Your task to perform on an android device: What's on my calendar today? Image 0: 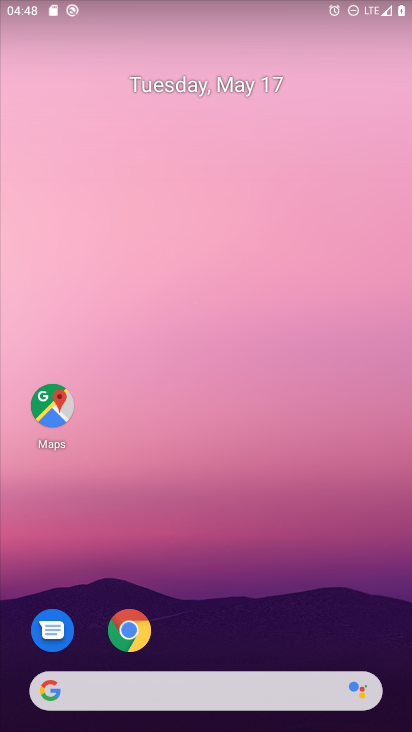
Step 0: drag from (213, 502) to (288, 63)
Your task to perform on an android device: What's on my calendar today? Image 1: 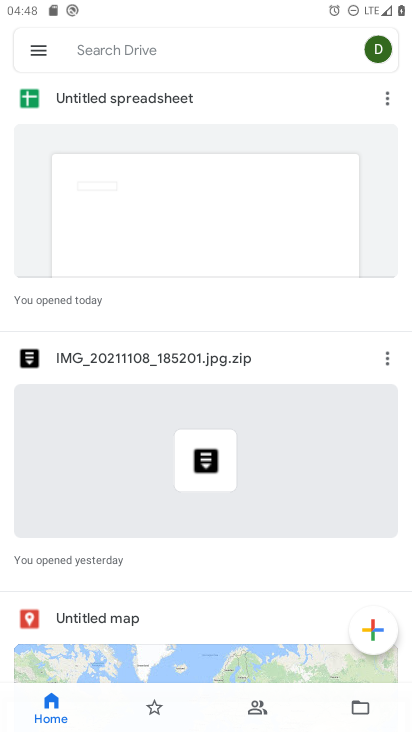
Step 1: press back button
Your task to perform on an android device: What's on my calendar today? Image 2: 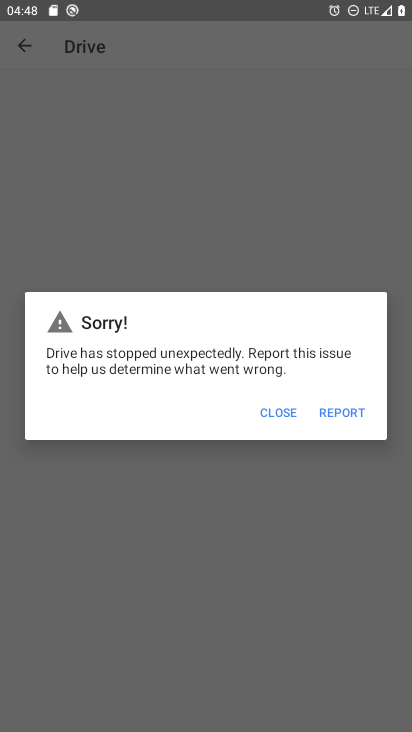
Step 2: click (258, 407)
Your task to perform on an android device: What's on my calendar today? Image 3: 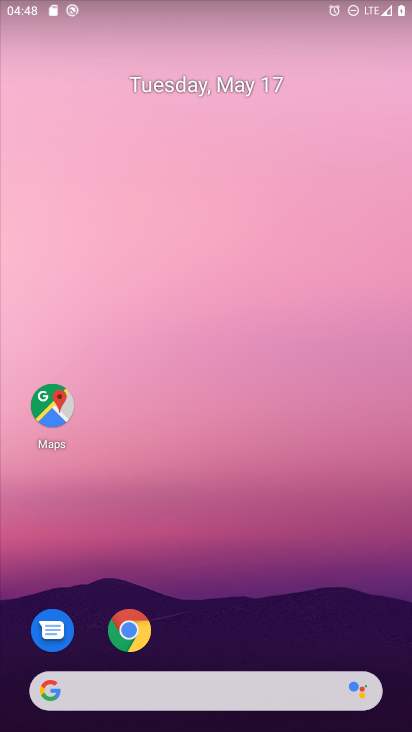
Step 3: drag from (194, 579) to (265, 7)
Your task to perform on an android device: What's on my calendar today? Image 4: 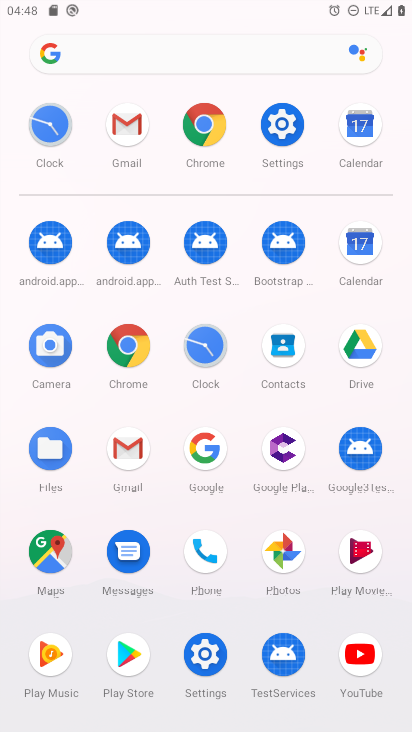
Step 4: click (356, 247)
Your task to perform on an android device: What's on my calendar today? Image 5: 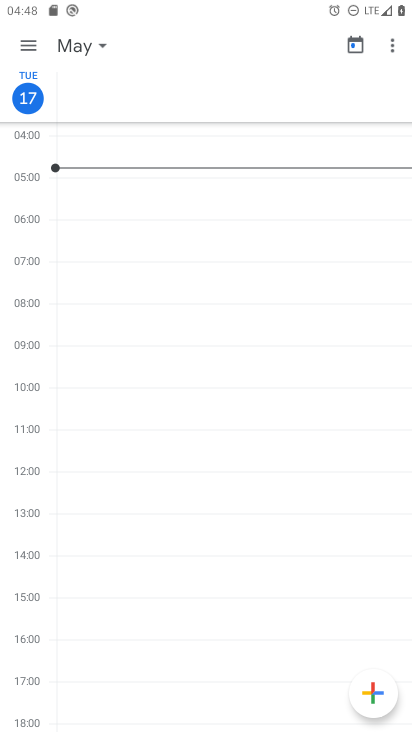
Step 5: click (28, 41)
Your task to perform on an android device: What's on my calendar today? Image 6: 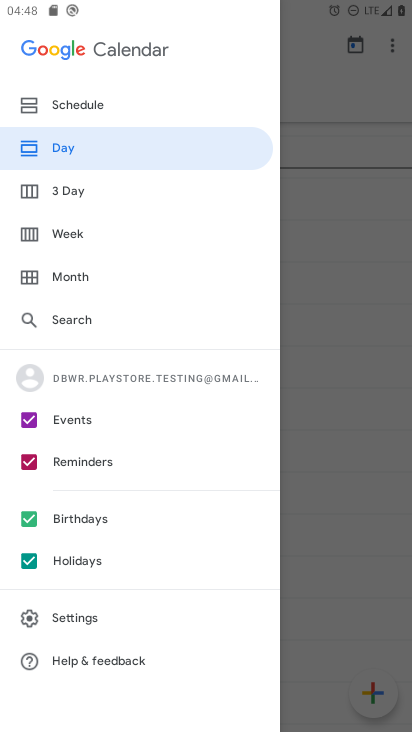
Step 6: click (75, 103)
Your task to perform on an android device: What's on my calendar today? Image 7: 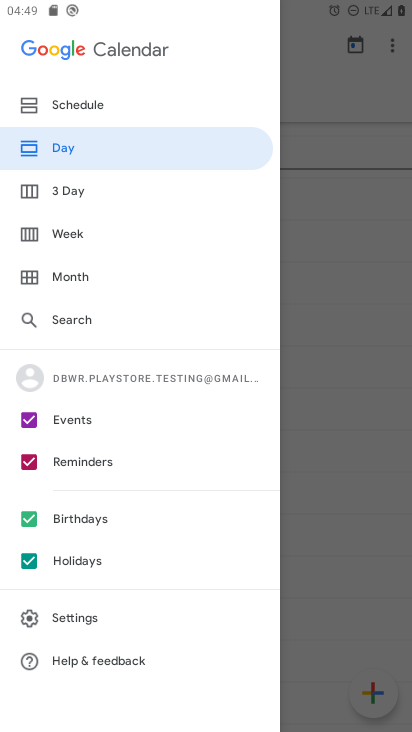
Step 7: click (76, 103)
Your task to perform on an android device: What's on my calendar today? Image 8: 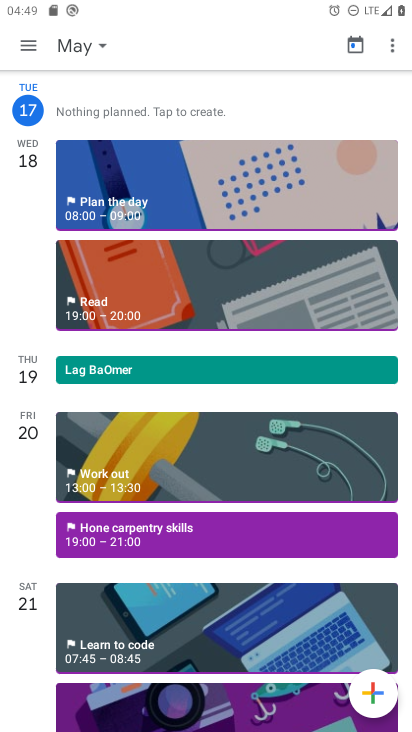
Step 8: task complete